Your task to perform on an android device: toggle location history Image 0: 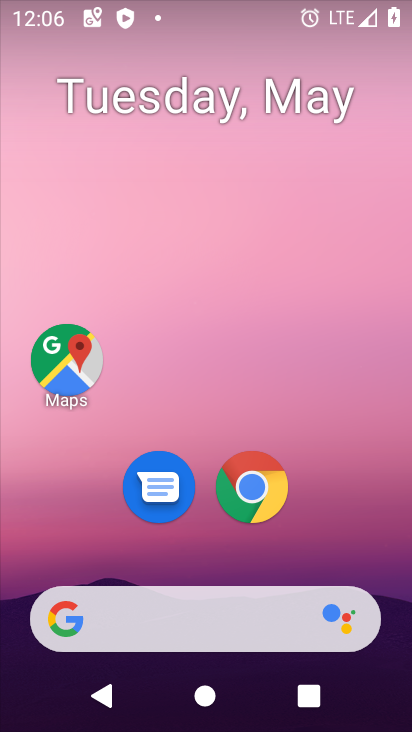
Step 0: drag from (17, 674) to (193, 201)
Your task to perform on an android device: toggle location history Image 1: 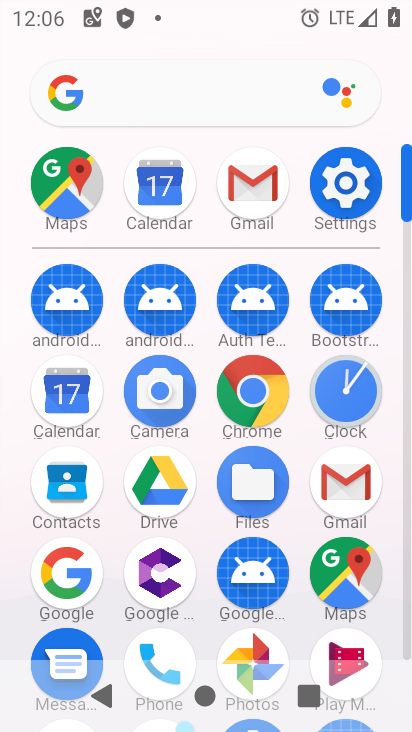
Step 1: click (334, 185)
Your task to perform on an android device: toggle location history Image 2: 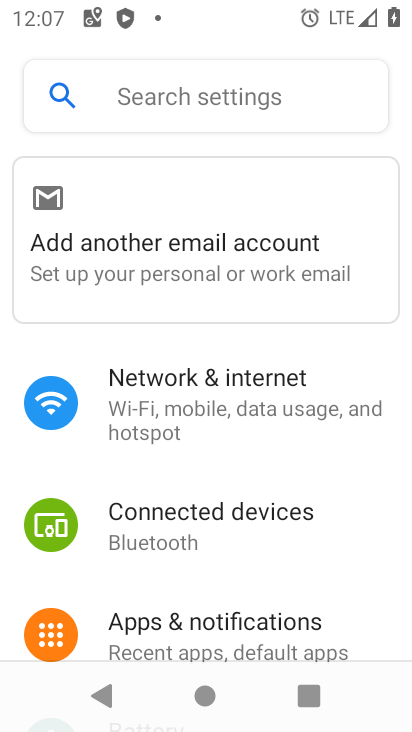
Step 2: drag from (10, 510) to (161, 236)
Your task to perform on an android device: toggle location history Image 3: 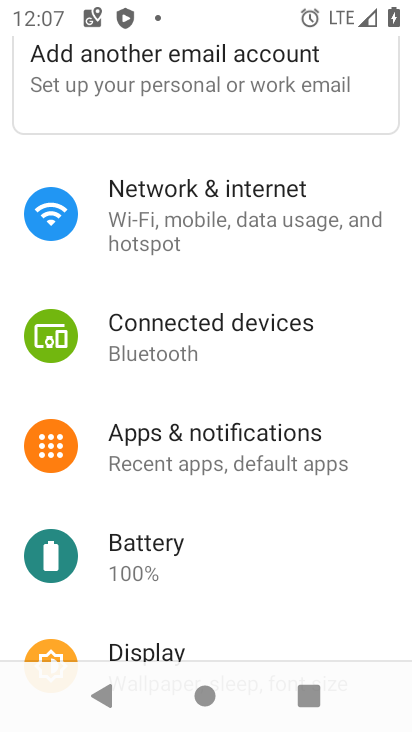
Step 3: drag from (22, 647) to (225, 281)
Your task to perform on an android device: toggle location history Image 4: 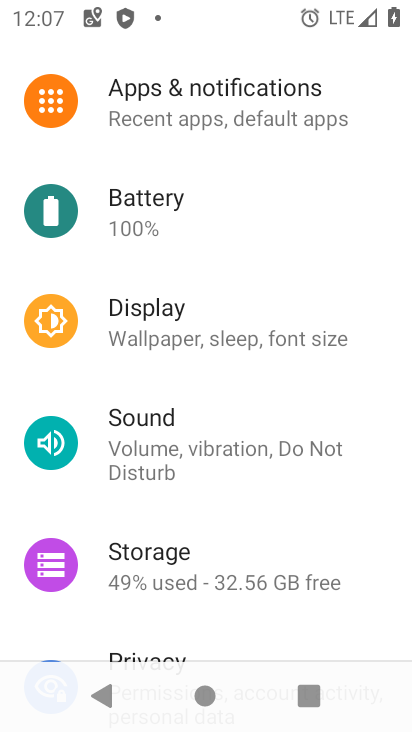
Step 4: drag from (18, 617) to (227, 191)
Your task to perform on an android device: toggle location history Image 5: 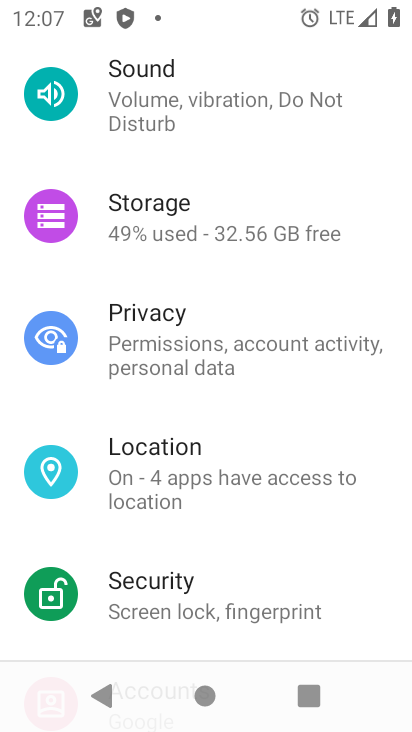
Step 5: click (226, 453)
Your task to perform on an android device: toggle location history Image 6: 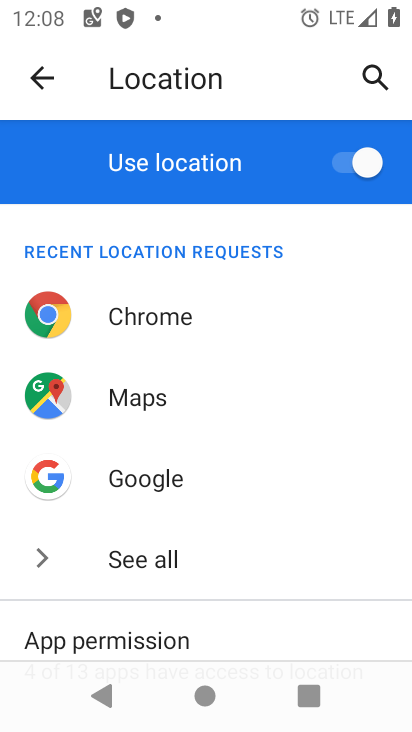
Step 6: drag from (130, 364) to (238, 198)
Your task to perform on an android device: toggle location history Image 7: 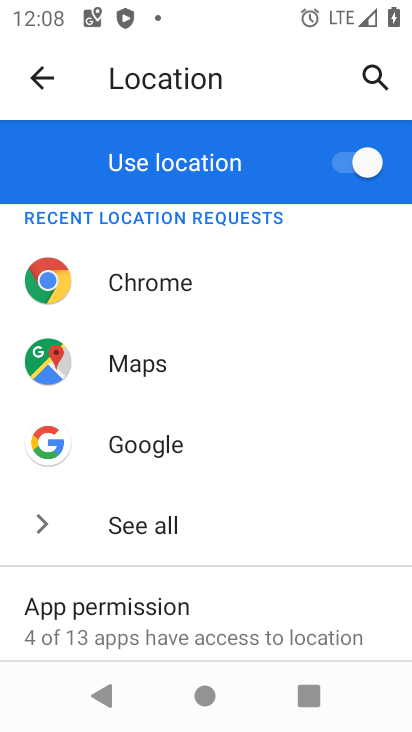
Step 7: drag from (85, 400) to (258, 115)
Your task to perform on an android device: toggle location history Image 8: 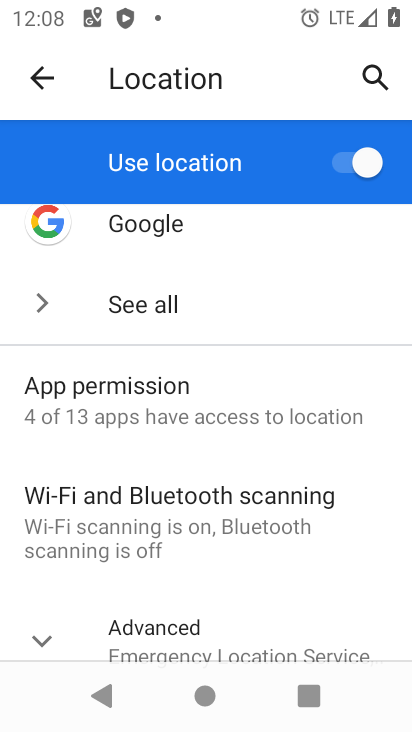
Step 8: drag from (58, 385) to (187, 136)
Your task to perform on an android device: toggle location history Image 9: 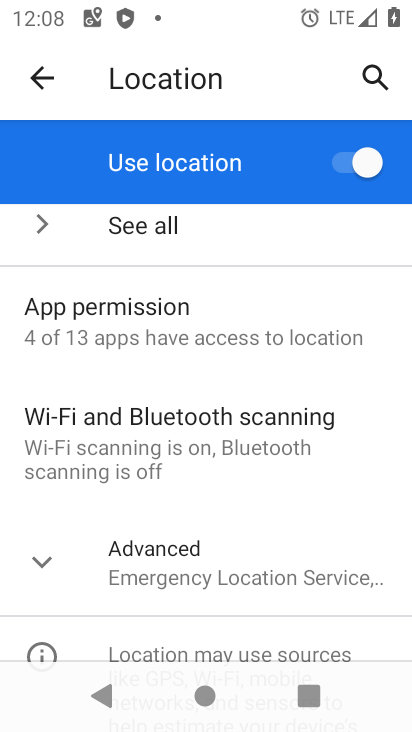
Step 9: click (206, 545)
Your task to perform on an android device: toggle location history Image 10: 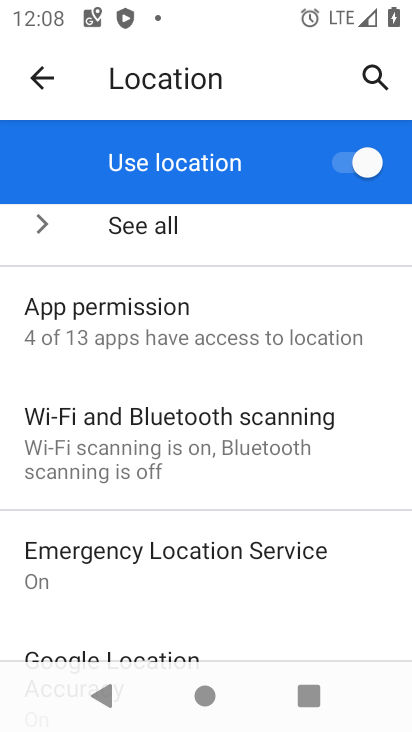
Step 10: drag from (18, 500) to (170, 208)
Your task to perform on an android device: toggle location history Image 11: 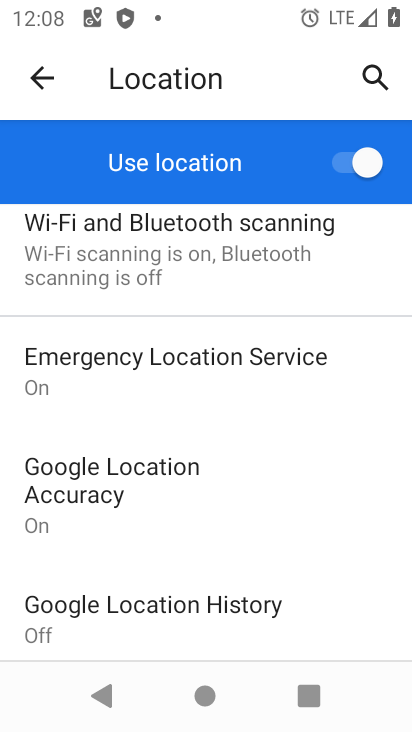
Step 11: click (144, 615)
Your task to perform on an android device: toggle location history Image 12: 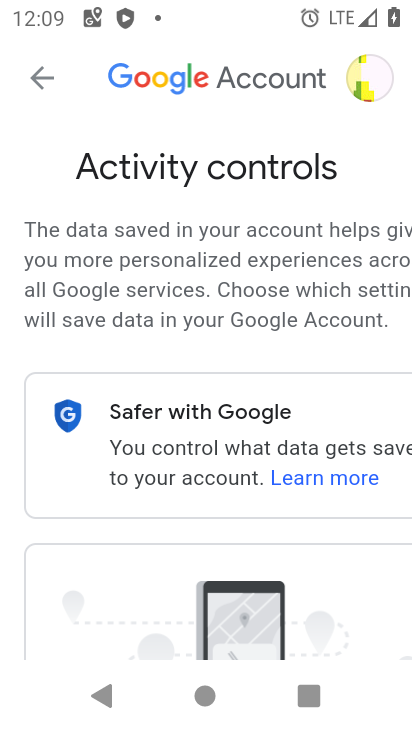
Step 12: drag from (64, 512) to (272, 109)
Your task to perform on an android device: toggle location history Image 13: 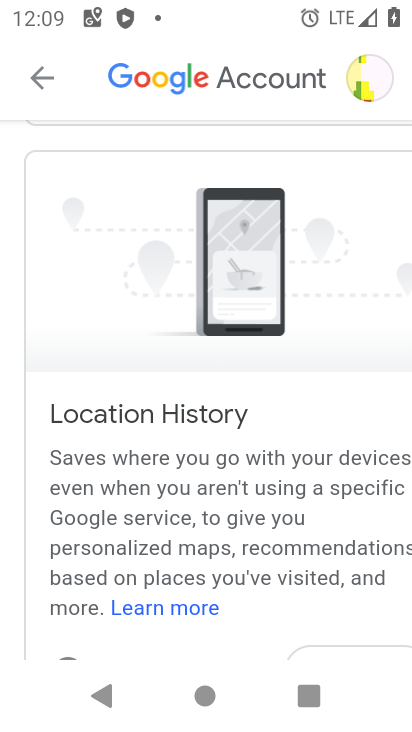
Step 13: drag from (13, 622) to (292, 226)
Your task to perform on an android device: toggle location history Image 14: 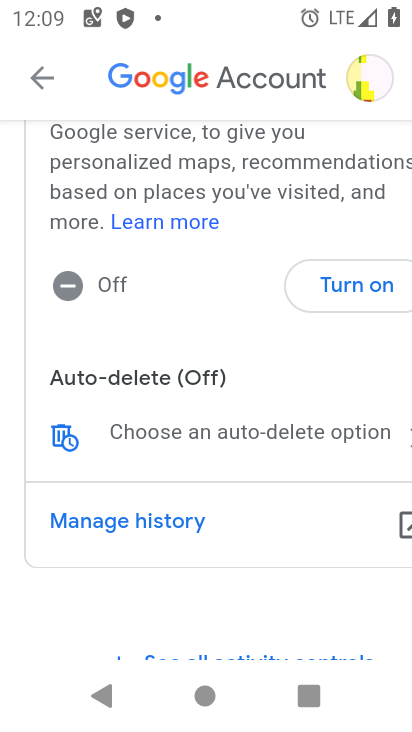
Step 14: click (373, 284)
Your task to perform on an android device: toggle location history Image 15: 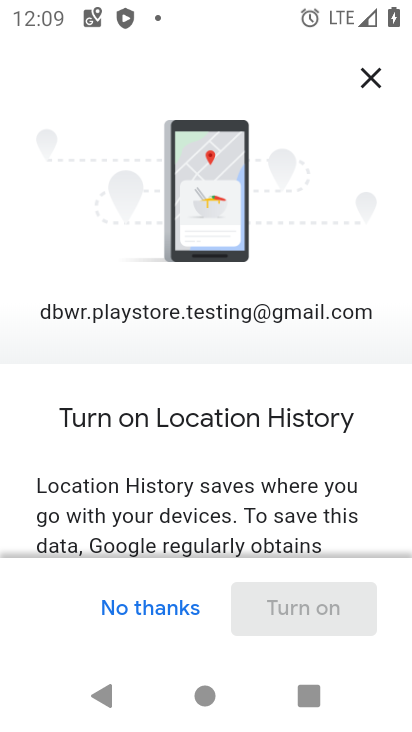
Step 15: drag from (139, 516) to (305, 58)
Your task to perform on an android device: toggle location history Image 16: 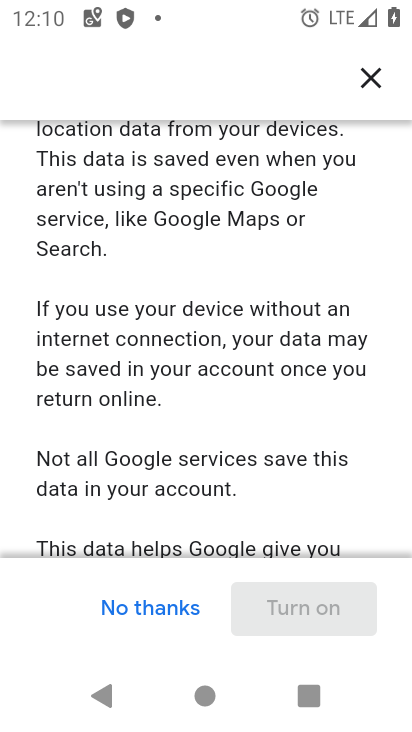
Step 16: drag from (97, 482) to (292, 61)
Your task to perform on an android device: toggle location history Image 17: 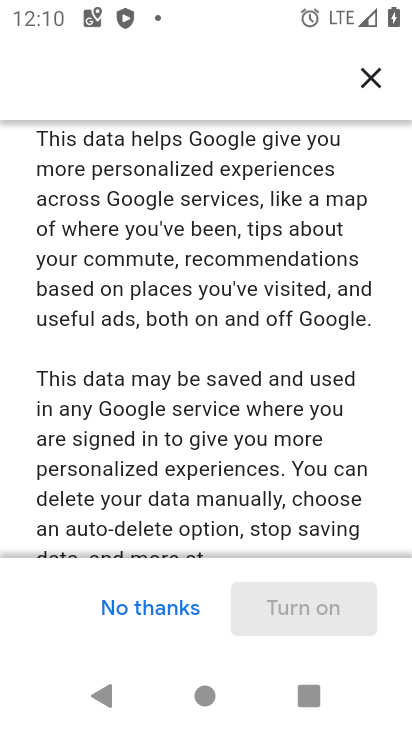
Step 17: drag from (49, 475) to (259, 17)
Your task to perform on an android device: toggle location history Image 18: 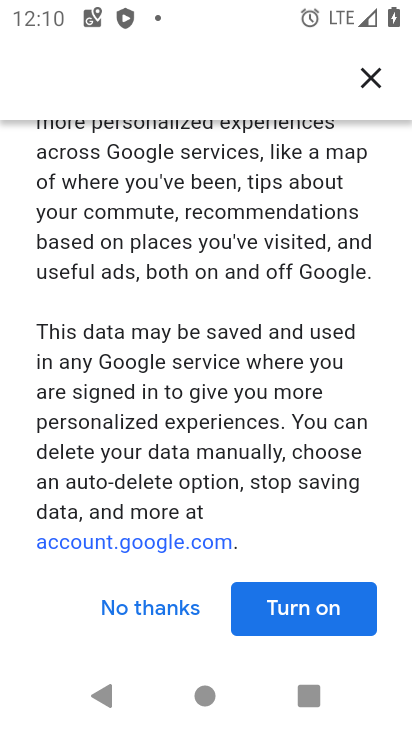
Step 18: click (297, 602)
Your task to perform on an android device: toggle location history Image 19: 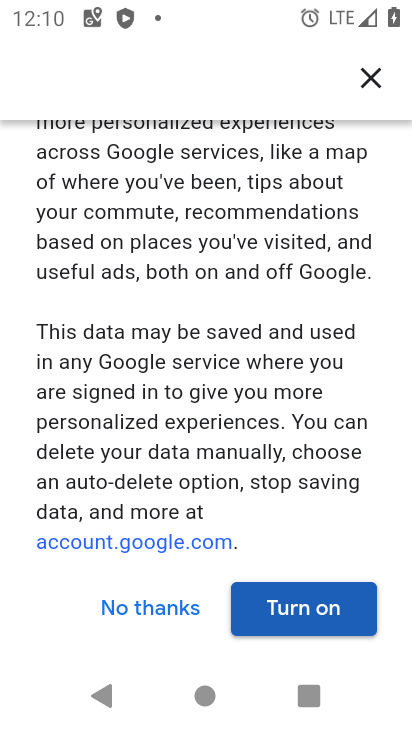
Step 19: click (291, 618)
Your task to perform on an android device: toggle location history Image 20: 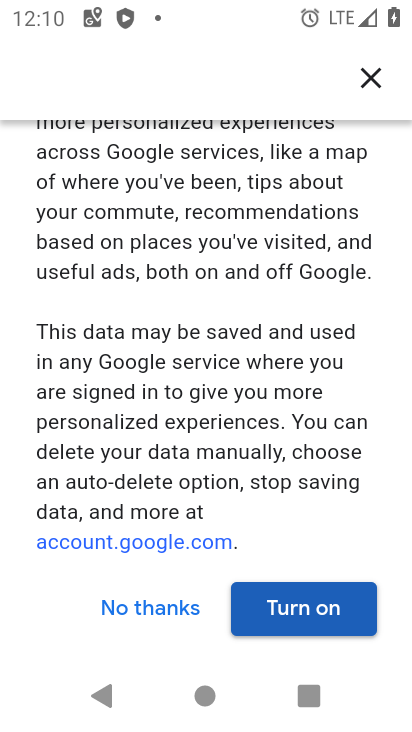
Step 20: click (295, 621)
Your task to perform on an android device: toggle location history Image 21: 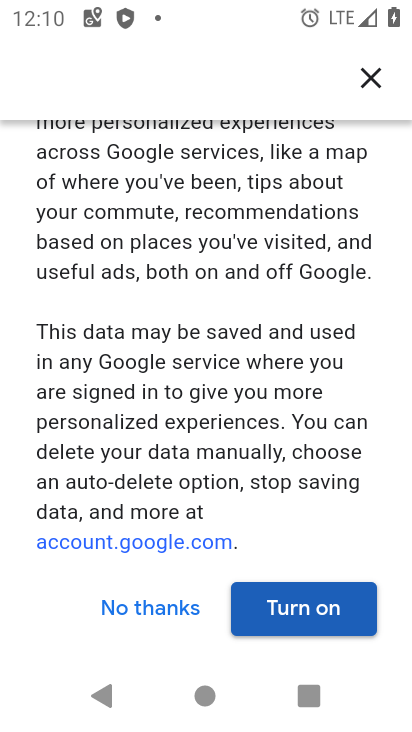
Step 21: task complete